Your task to perform on an android device: Toggle the flashlight Image 0: 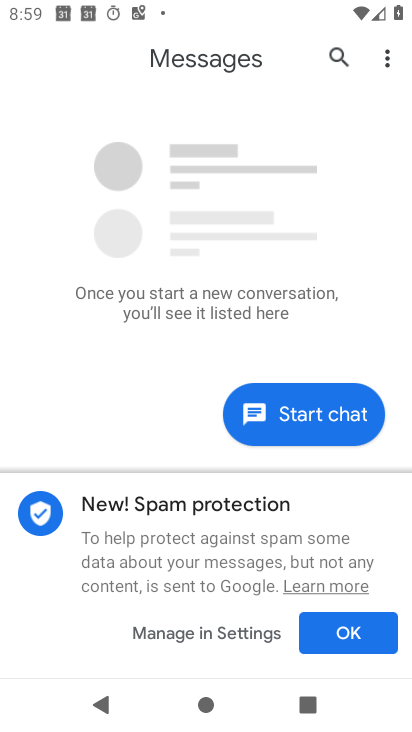
Step 0: press home button
Your task to perform on an android device: Toggle the flashlight Image 1: 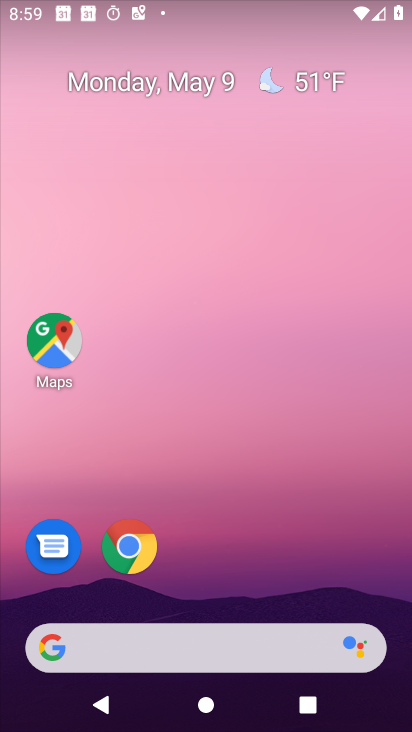
Step 1: task complete